Your task to perform on an android device: read, delete, or share a saved page in the chrome app Image 0: 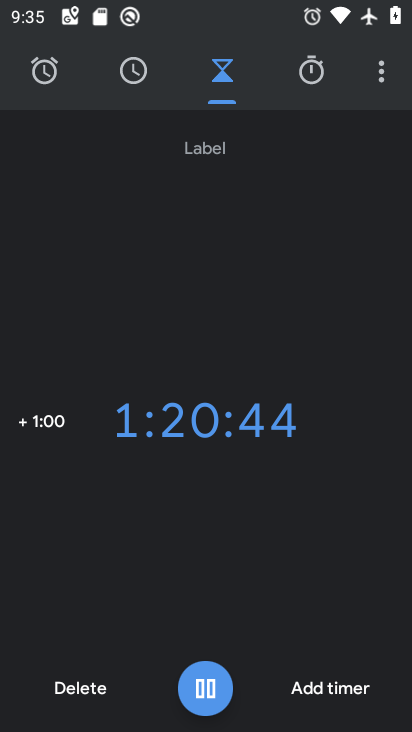
Step 0: press home button
Your task to perform on an android device: read, delete, or share a saved page in the chrome app Image 1: 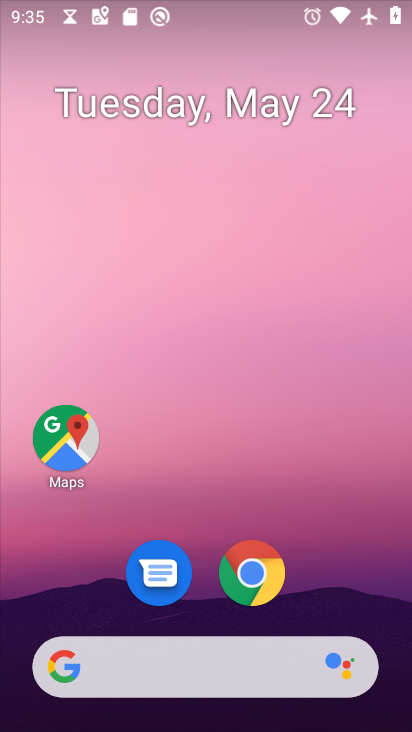
Step 1: drag from (361, 603) to (383, 77)
Your task to perform on an android device: read, delete, or share a saved page in the chrome app Image 2: 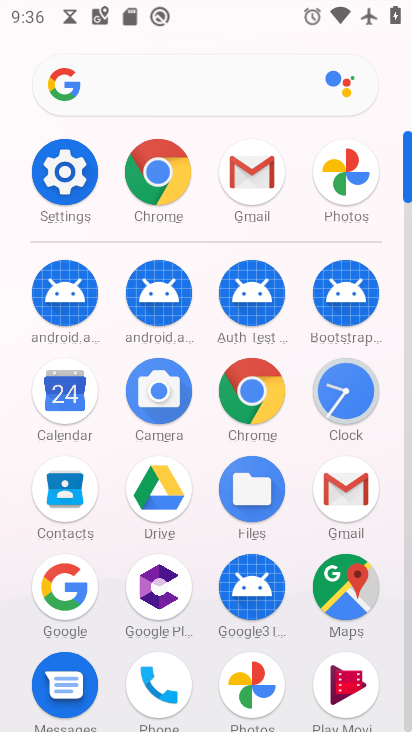
Step 2: click (152, 190)
Your task to perform on an android device: read, delete, or share a saved page in the chrome app Image 3: 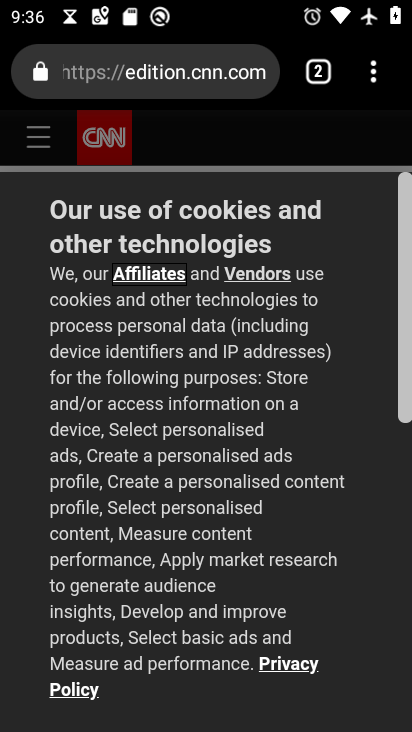
Step 3: drag from (251, 618) to (322, 210)
Your task to perform on an android device: read, delete, or share a saved page in the chrome app Image 4: 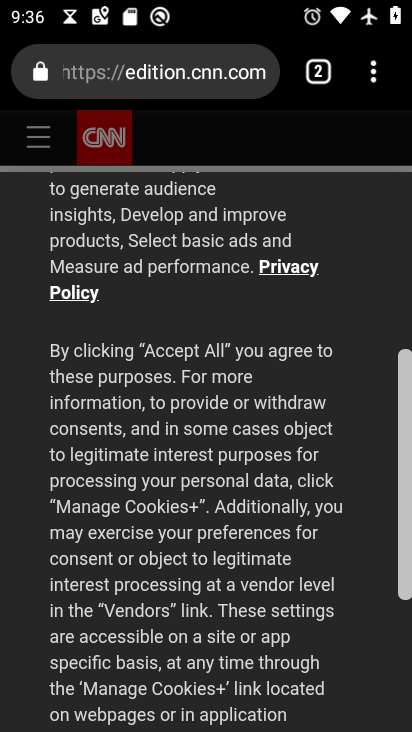
Step 4: click (369, 86)
Your task to perform on an android device: read, delete, or share a saved page in the chrome app Image 5: 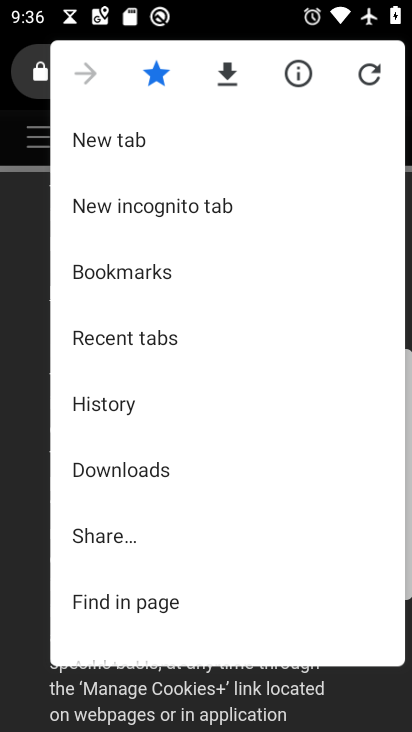
Step 5: drag from (200, 569) to (229, 185)
Your task to perform on an android device: read, delete, or share a saved page in the chrome app Image 6: 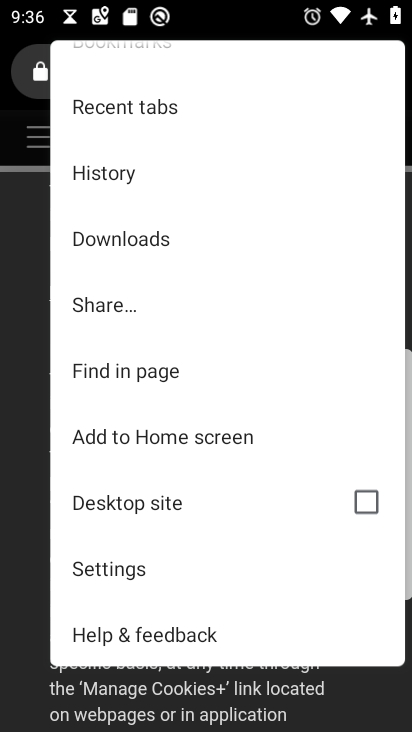
Step 6: click (107, 557)
Your task to perform on an android device: read, delete, or share a saved page in the chrome app Image 7: 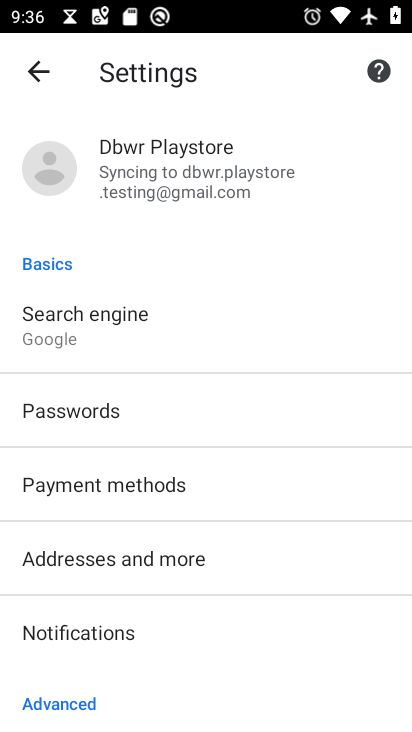
Step 7: drag from (201, 663) to (263, 236)
Your task to perform on an android device: read, delete, or share a saved page in the chrome app Image 8: 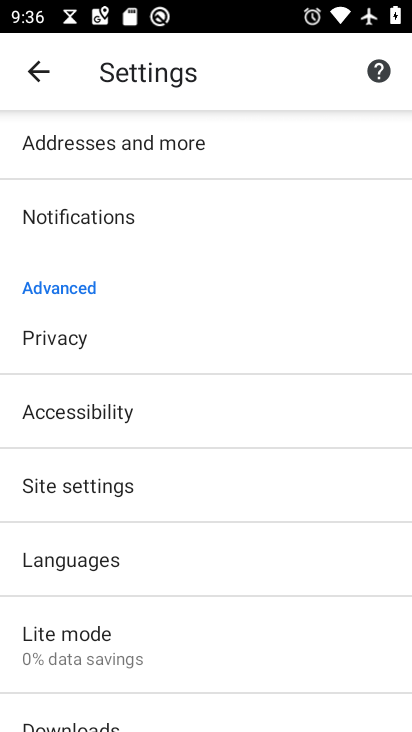
Step 8: drag from (266, 232) to (227, 700)
Your task to perform on an android device: read, delete, or share a saved page in the chrome app Image 9: 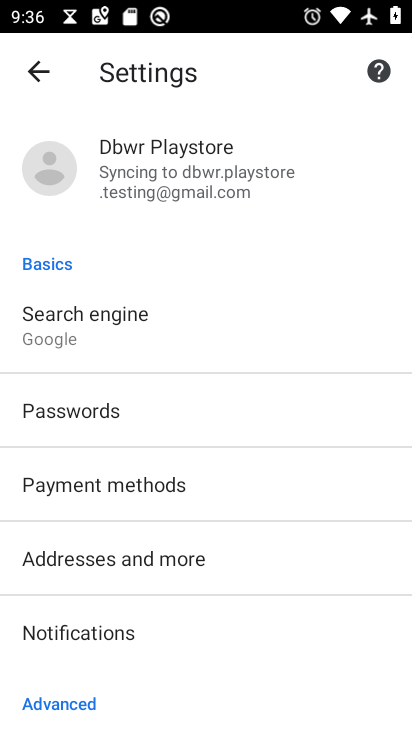
Step 9: drag from (221, 693) to (268, 243)
Your task to perform on an android device: read, delete, or share a saved page in the chrome app Image 10: 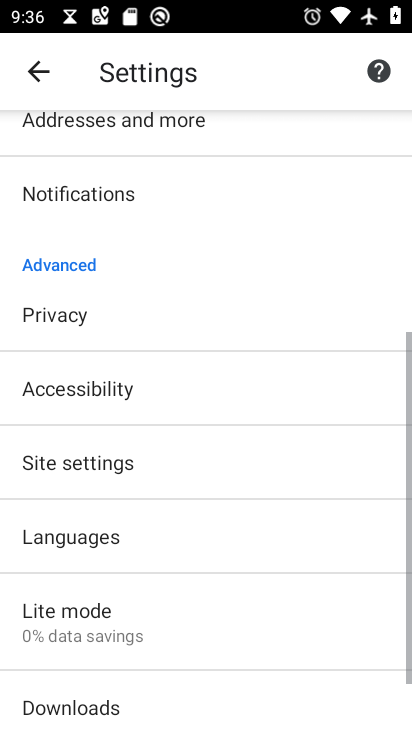
Step 10: drag from (282, 286) to (334, 731)
Your task to perform on an android device: read, delete, or share a saved page in the chrome app Image 11: 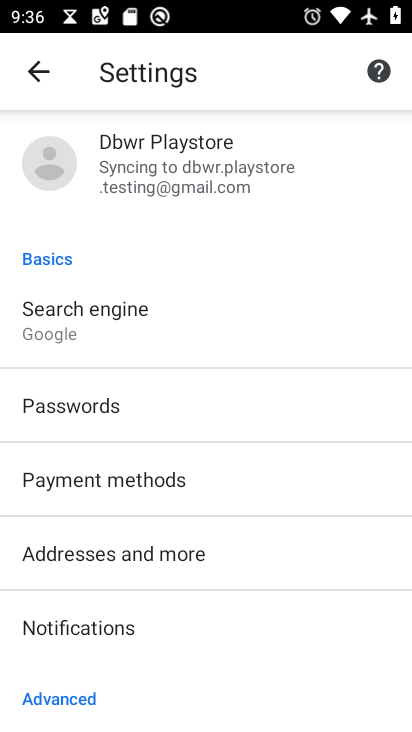
Step 11: press home button
Your task to perform on an android device: read, delete, or share a saved page in the chrome app Image 12: 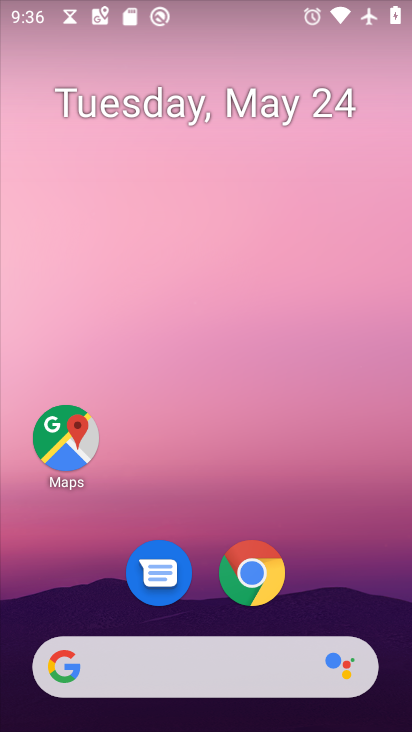
Step 12: click (255, 578)
Your task to perform on an android device: read, delete, or share a saved page in the chrome app Image 13: 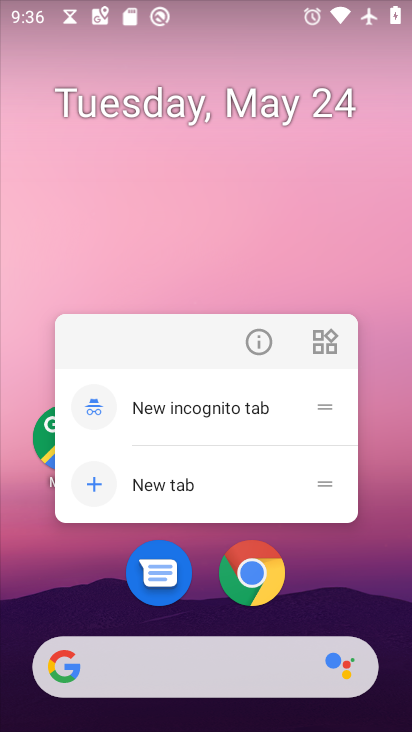
Step 13: click (254, 606)
Your task to perform on an android device: read, delete, or share a saved page in the chrome app Image 14: 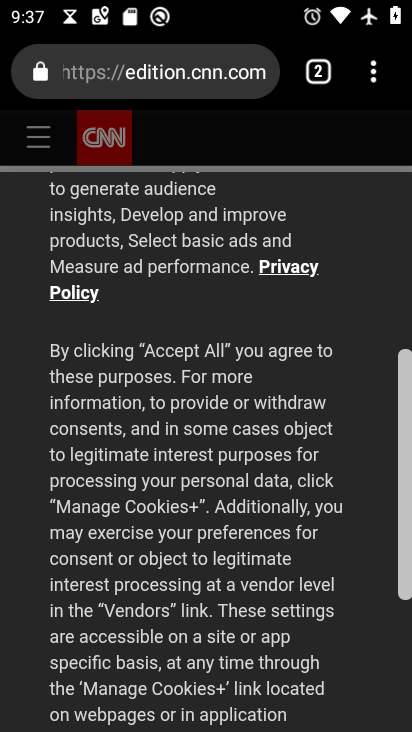
Step 14: task complete